Your task to perform on an android device: check storage Image 0: 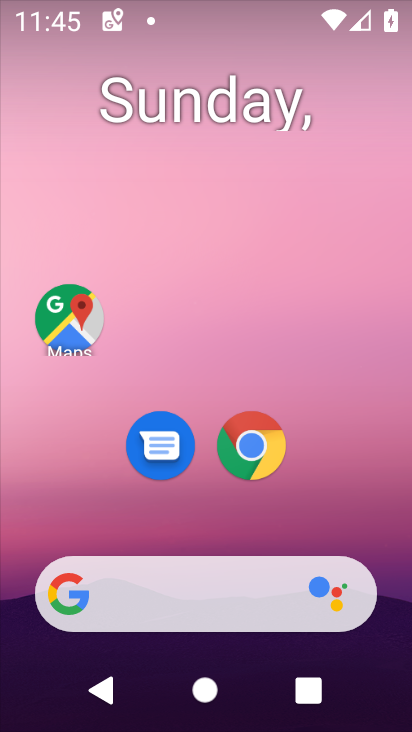
Step 0: drag from (329, 236) to (330, 68)
Your task to perform on an android device: check storage Image 1: 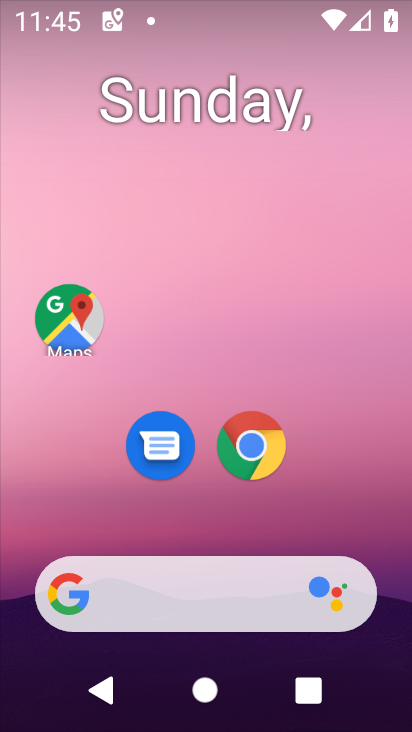
Step 1: drag from (313, 510) to (304, 98)
Your task to perform on an android device: check storage Image 2: 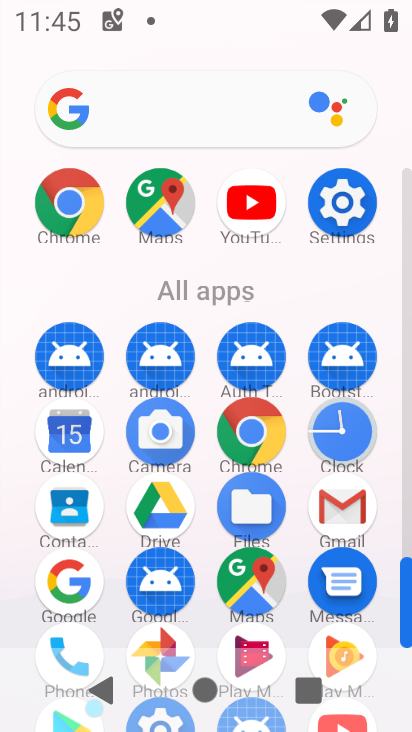
Step 2: click (340, 199)
Your task to perform on an android device: check storage Image 3: 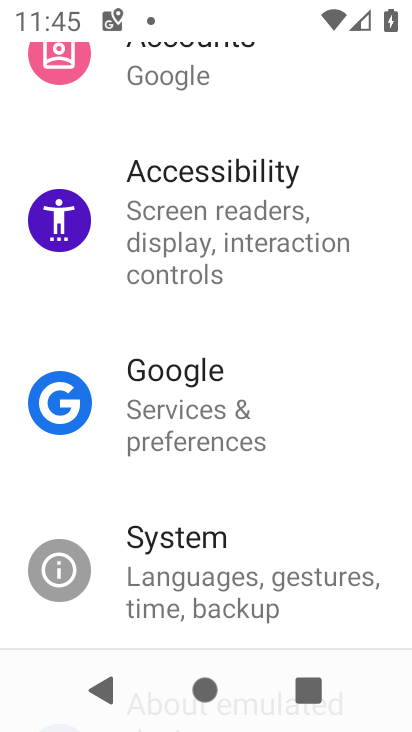
Step 3: drag from (285, 152) to (262, 452)
Your task to perform on an android device: check storage Image 4: 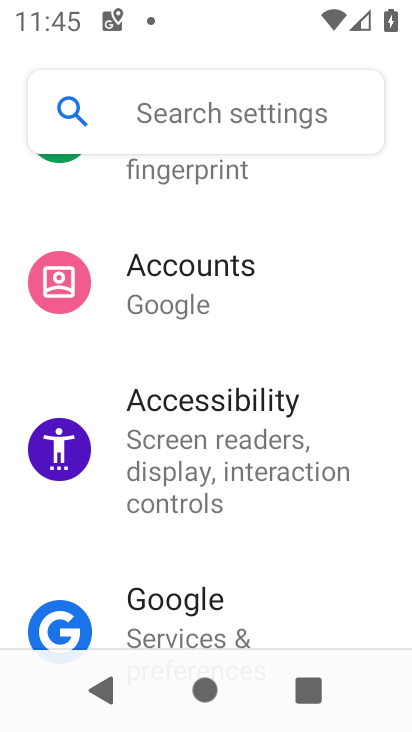
Step 4: drag from (232, 208) to (234, 590)
Your task to perform on an android device: check storage Image 5: 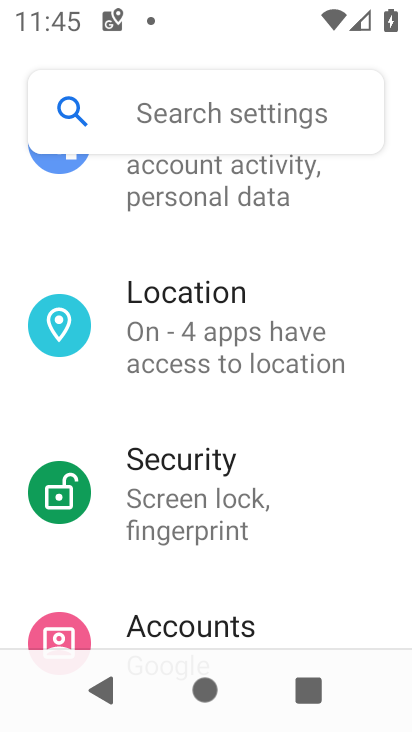
Step 5: drag from (256, 235) to (230, 582)
Your task to perform on an android device: check storage Image 6: 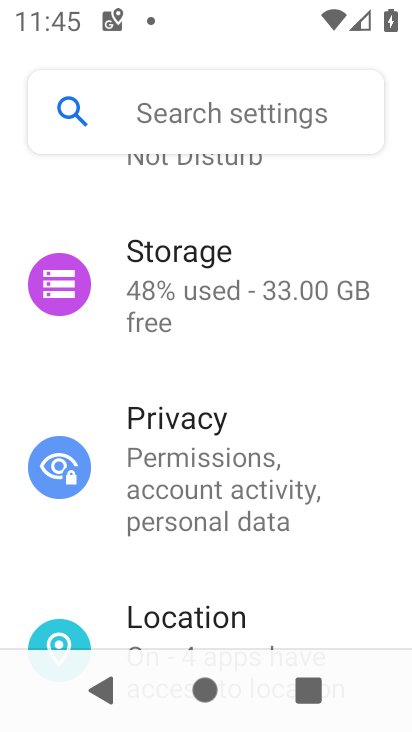
Step 6: click (206, 288)
Your task to perform on an android device: check storage Image 7: 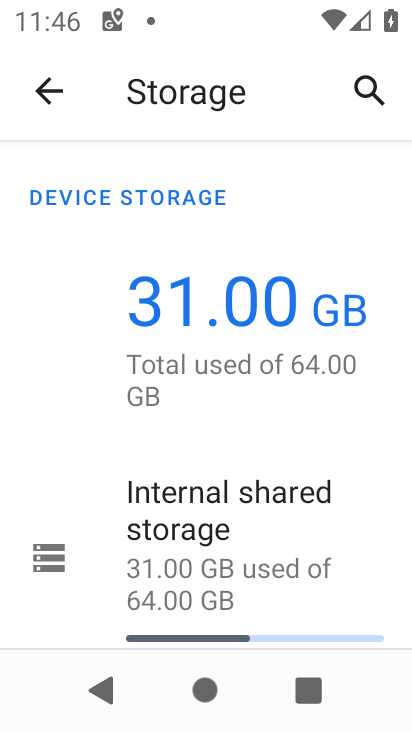
Step 7: task complete